Your task to perform on an android device: Show me popular games on the Play Store Image 0: 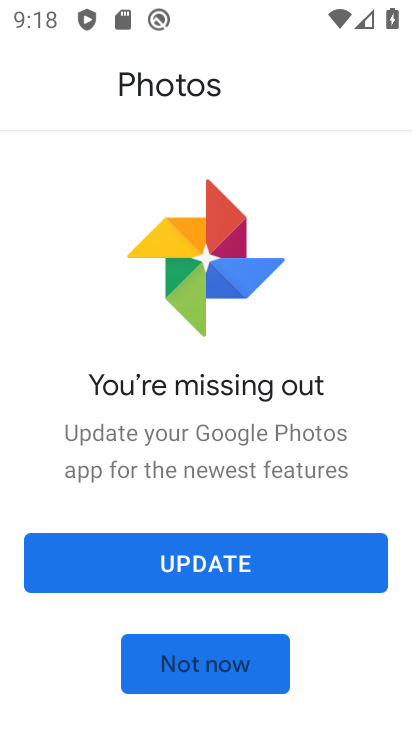
Step 0: press home button
Your task to perform on an android device: Show me popular games on the Play Store Image 1: 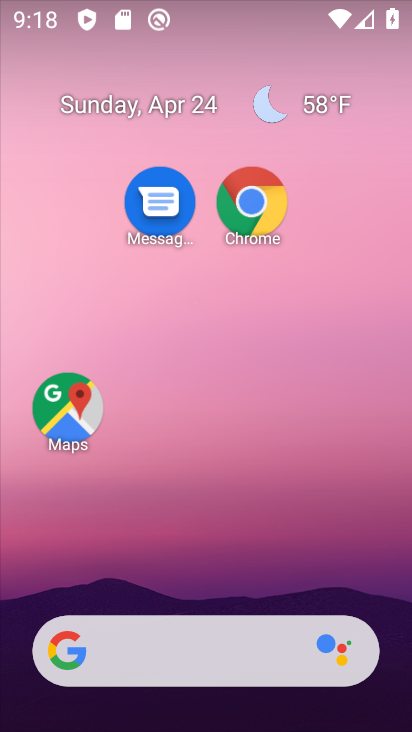
Step 1: drag from (196, 722) to (187, 139)
Your task to perform on an android device: Show me popular games on the Play Store Image 2: 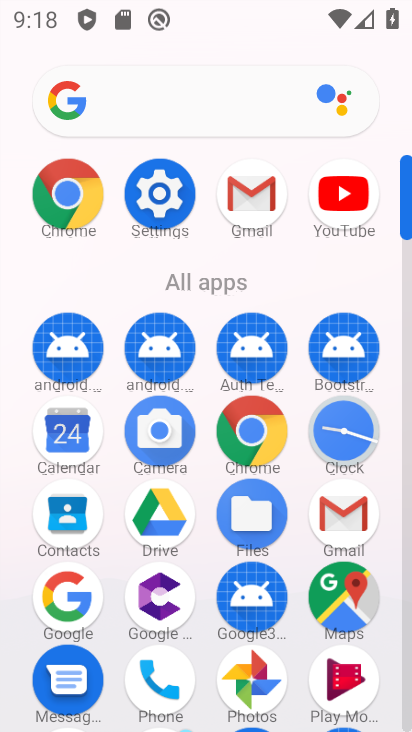
Step 2: drag from (200, 653) to (176, 229)
Your task to perform on an android device: Show me popular games on the Play Store Image 3: 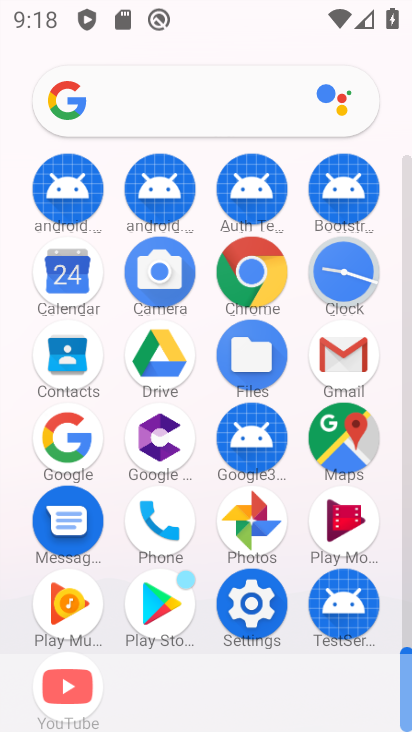
Step 3: click (168, 605)
Your task to perform on an android device: Show me popular games on the Play Store Image 4: 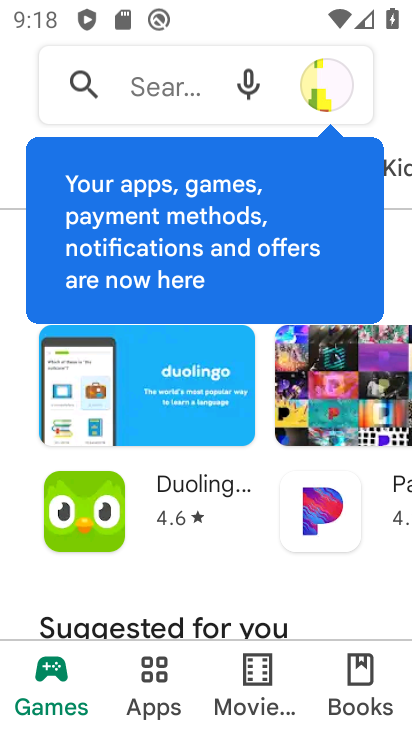
Step 4: drag from (214, 627) to (216, 322)
Your task to perform on an android device: Show me popular games on the Play Store Image 5: 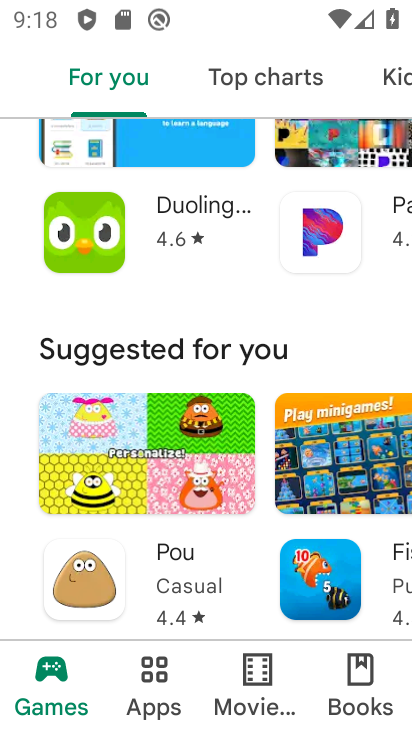
Step 5: drag from (232, 621) to (221, 256)
Your task to perform on an android device: Show me popular games on the Play Store Image 6: 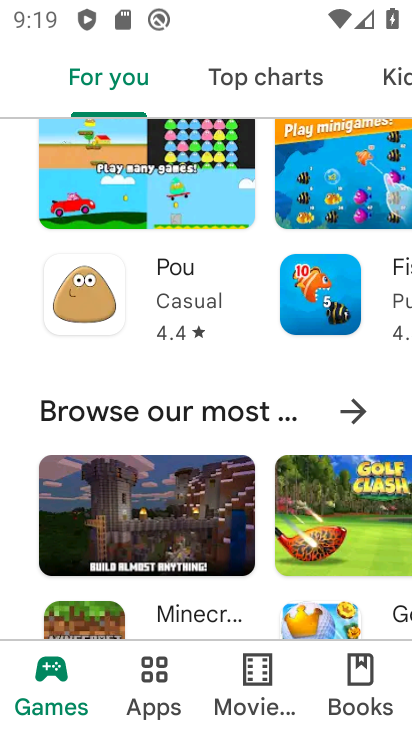
Step 6: click (344, 409)
Your task to perform on an android device: Show me popular games on the Play Store Image 7: 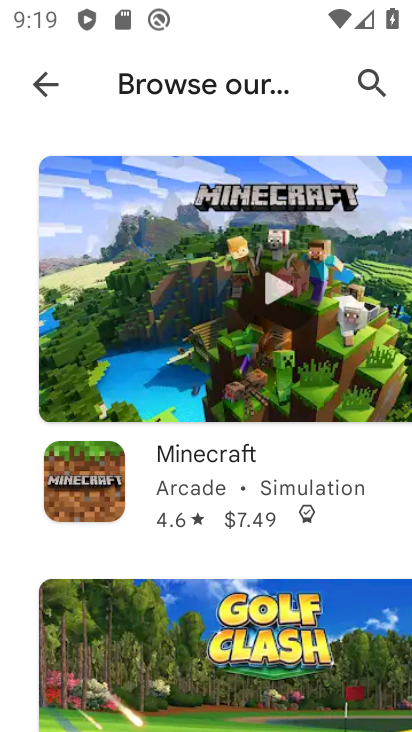
Step 7: task complete